Your task to perform on an android device: turn off location Image 0: 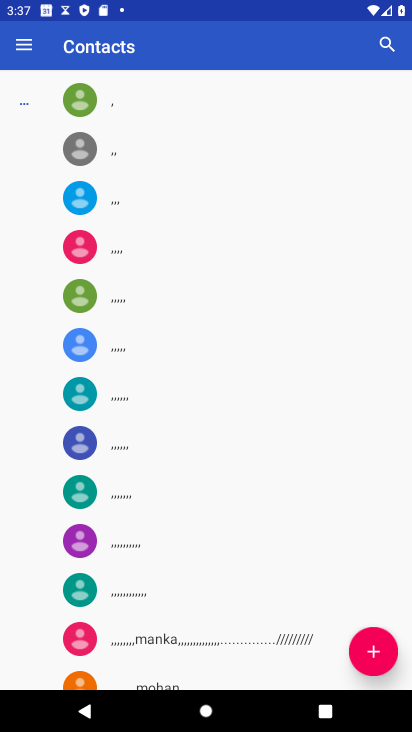
Step 0: press home button
Your task to perform on an android device: turn off location Image 1: 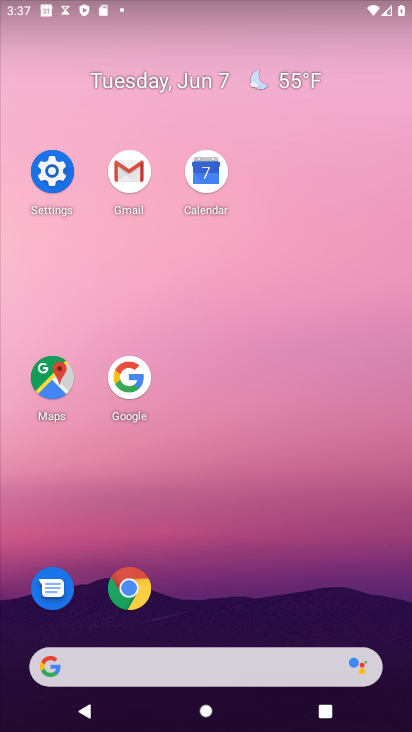
Step 1: click (52, 153)
Your task to perform on an android device: turn off location Image 2: 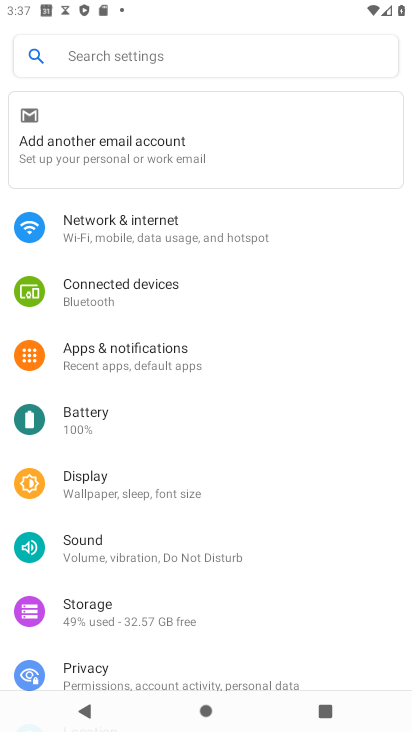
Step 2: drag from (178, 515) to (215, 169)
Your task to perform on an android device: turn off location Image 3: 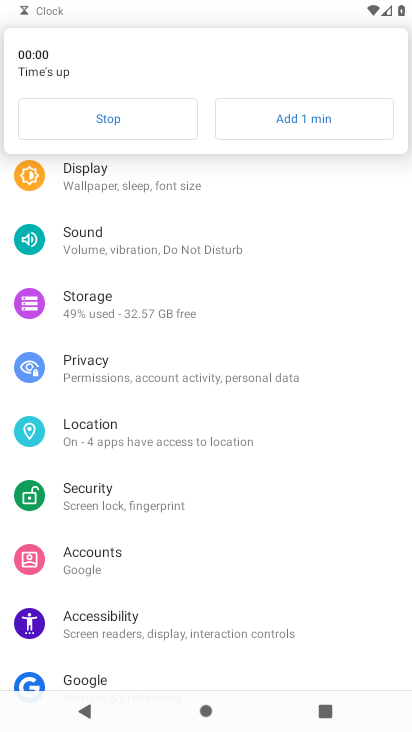
Step 3: click (146, 424)
Your task to perform on an android device: turn off location Image 4: 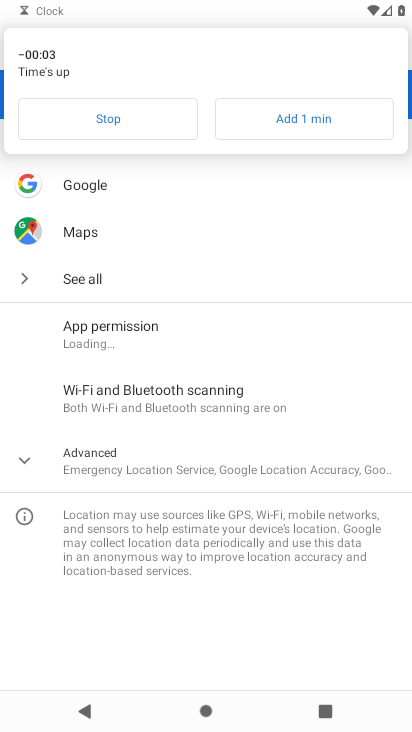
Step 4: click (137, 110)
Your task to perform on an android device: turn off location Image 5: 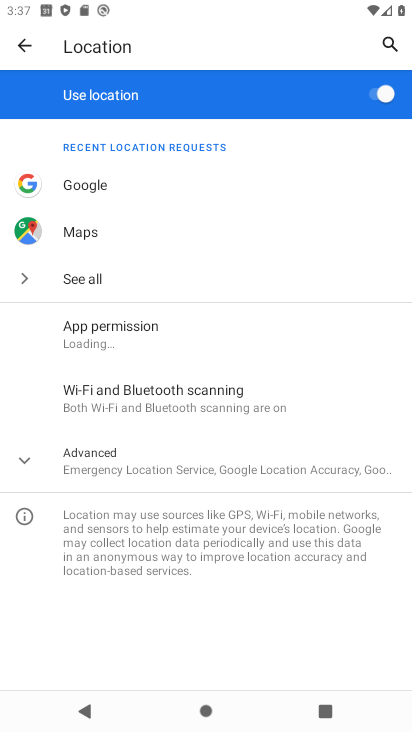
Step 5: click (386, 91)
Your task to perform on an android device: turn off location Image 6: 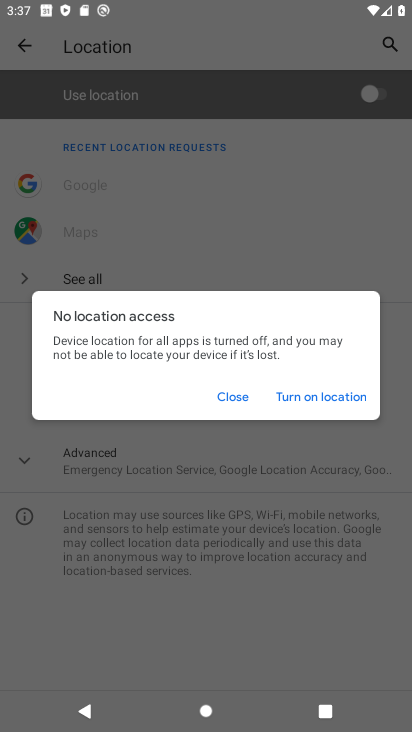
Step 6: task complete